Your task to perform on an android device: change your default location settings in chrome Image 0: 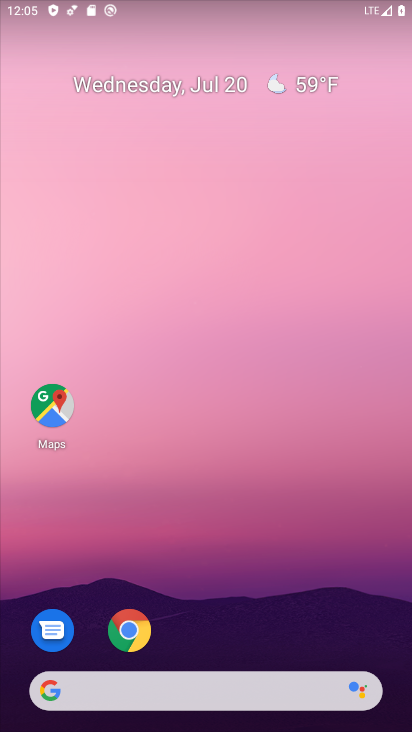
Step 0: drag from (163, 729) to (196, 208)
Your task to perform on an android device: change your default location settings in chrome Image 1: 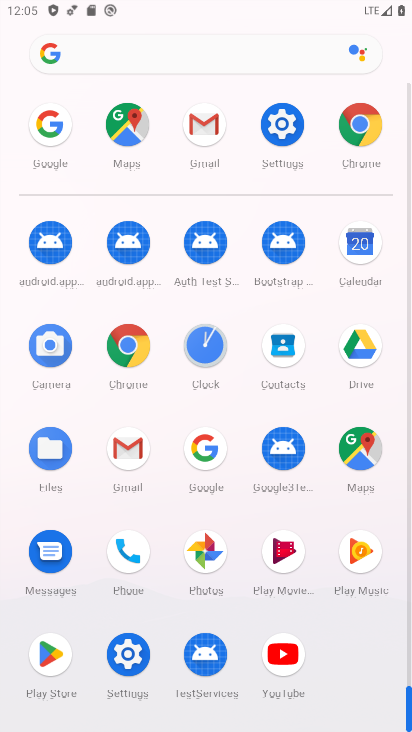
Step 1: drag from (210, 541) to (284, 260)
Your task to perform on an android device: change your default location settings in chrome Image 2: 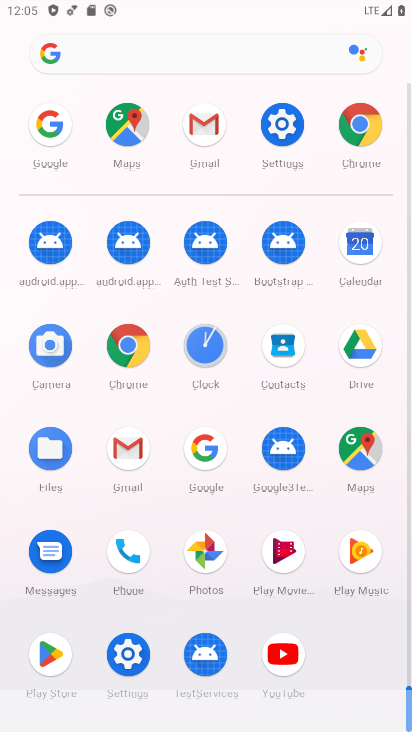
Step 2: click (130, 363)
Your task to perform on an android device: change your default location settings in chrome Image 3: 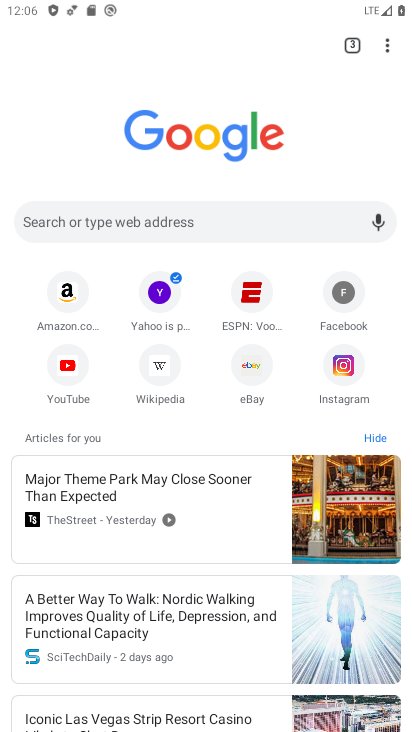
Step 3: click (393, 31)
Your task to perform on an android device: change your default location settings in chrome Image 4: 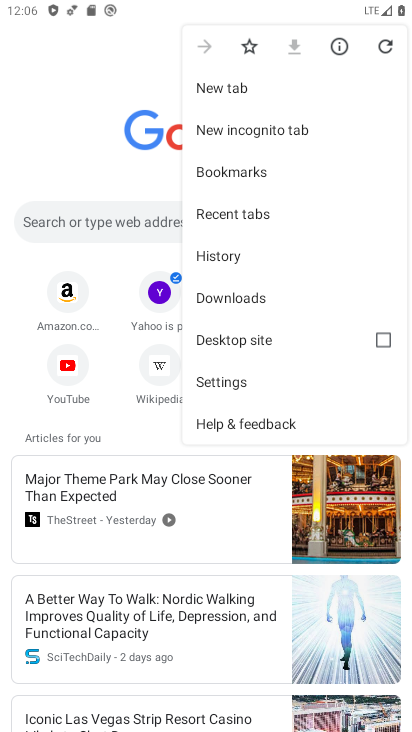
Step 4: click (224, 388)
Your task to perform on an android device: change your default location settings in chrome Image 5: 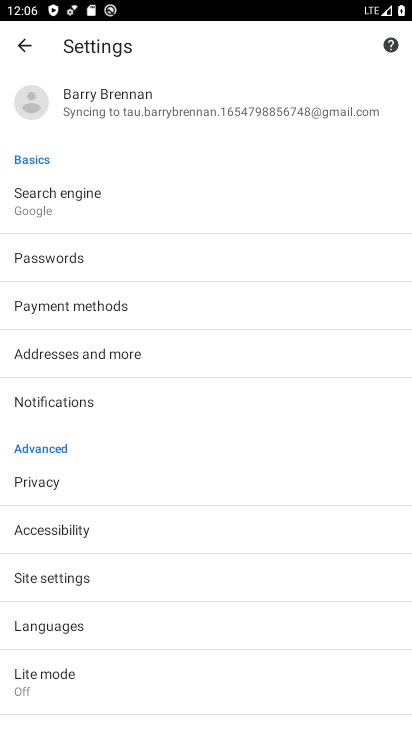
Step 5: click (68, 583)
Your task to perform on an android device: change your default location settings in chrome Image 6: 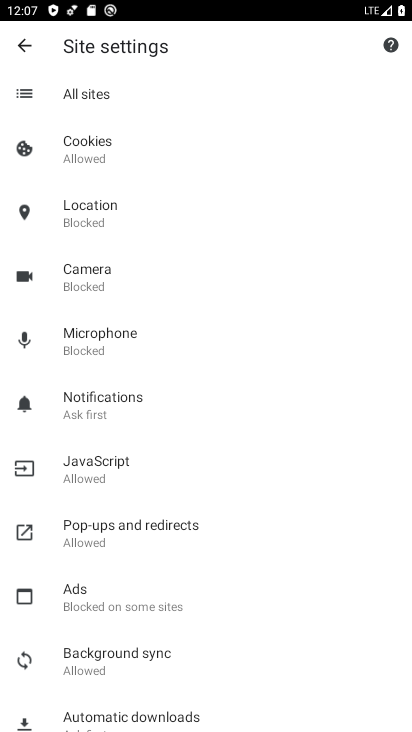
Step 6: click (102, 222)
Your task to perform on an android device: change your default location settings in chrome Image 7: 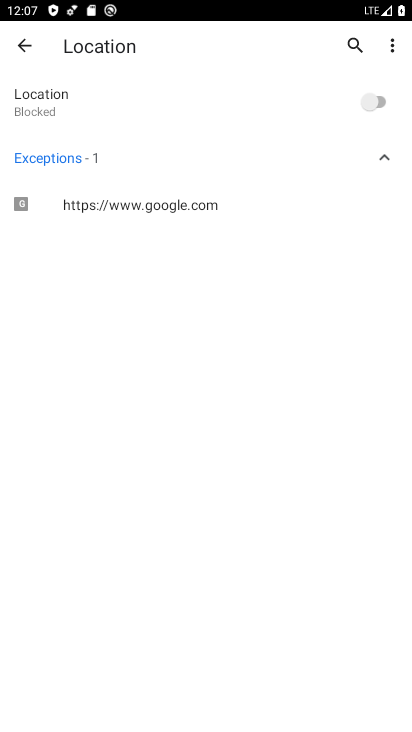
Step 7: click (391, 104)
Your task to perform on an android device: change your default location settings in chrome Image 8: 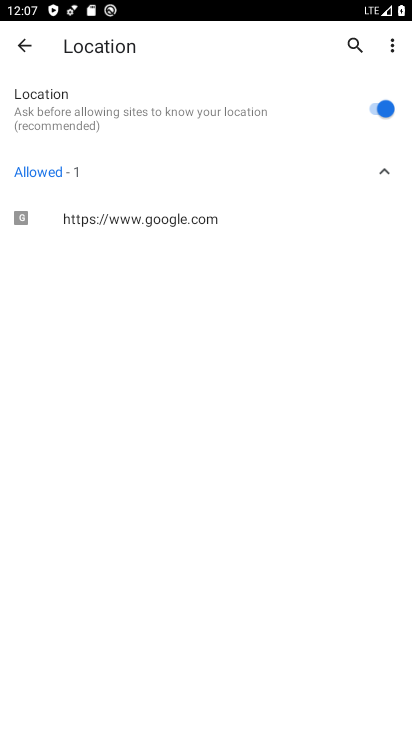
Step 8: task complete